Your task to perform on an android device: Turn off the flashlight Image 0: 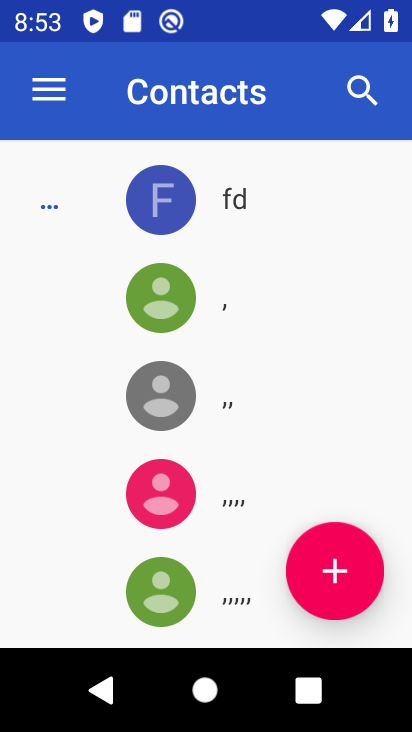
Step 0: press home button
Your task to perform on an android device: Turn off the flashlight Image 1: 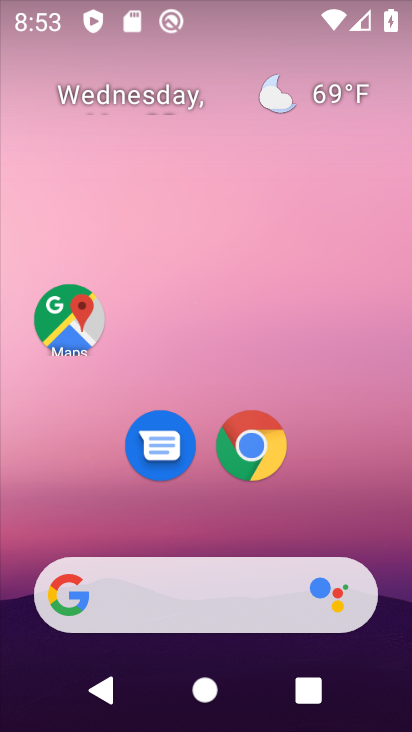
Step 1: task complete